Your task to perform on an android device: Search for a new lipstick on Sephora Image 0: 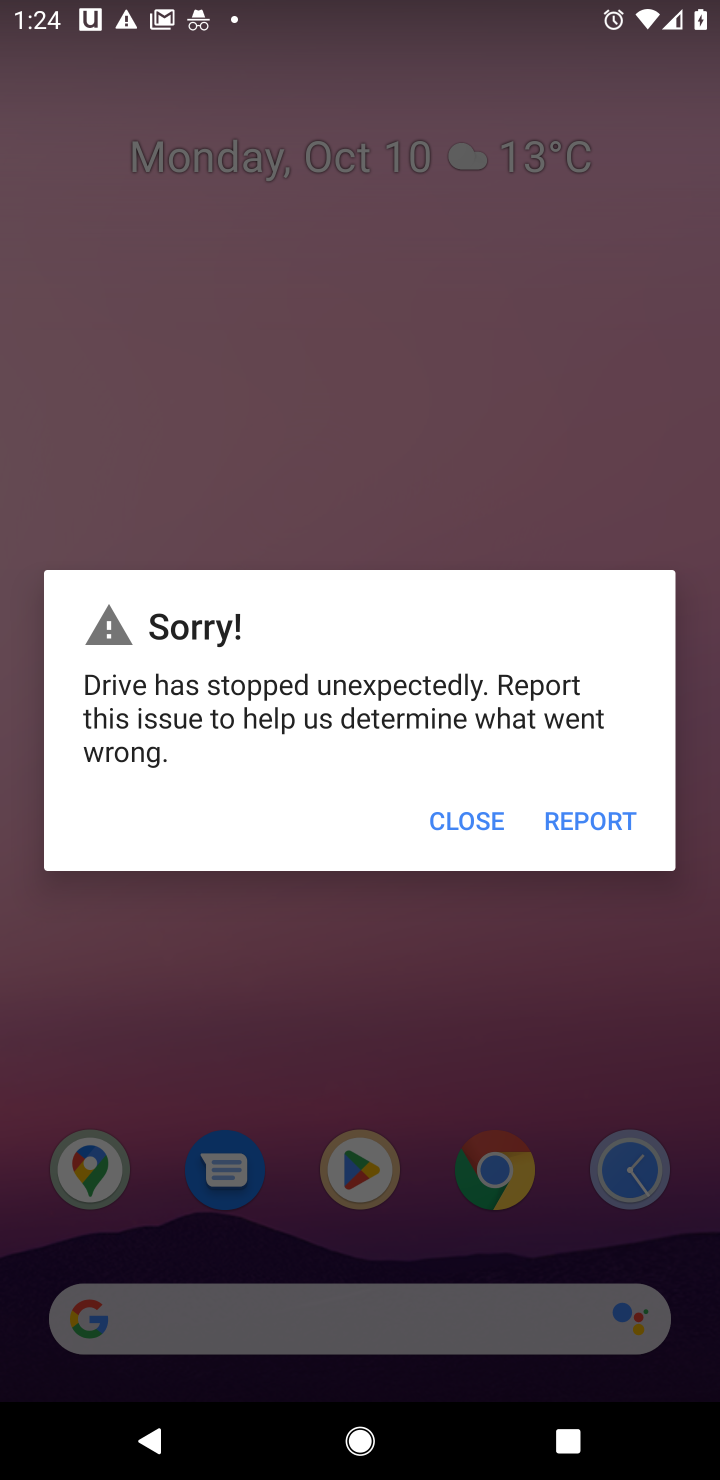
Step 0: press home button
Your task to perform on an android device: Search for a new lipstick on Sephora Image 1: 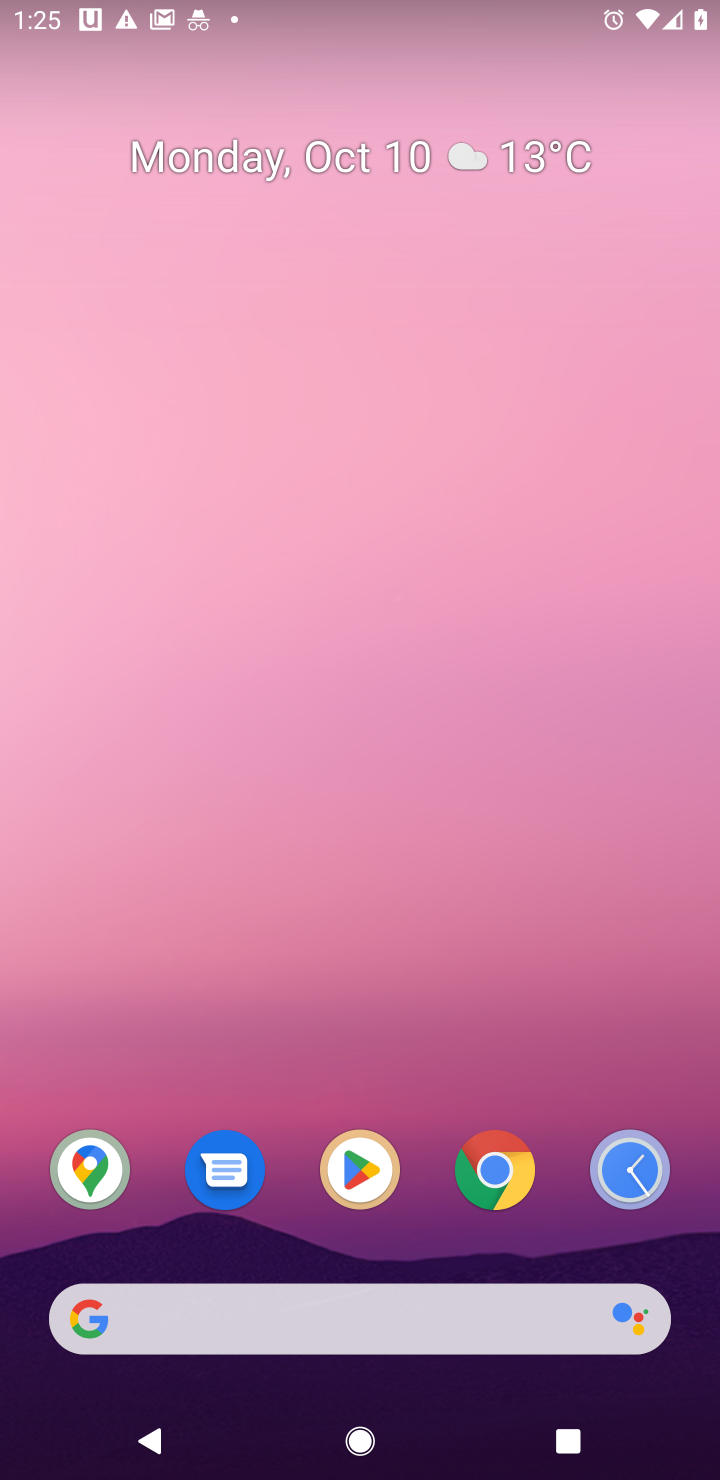
Step 1: click (516, 1163)
Your task to perform on an android device: Search for a new lipstick on Sephora Image 2: 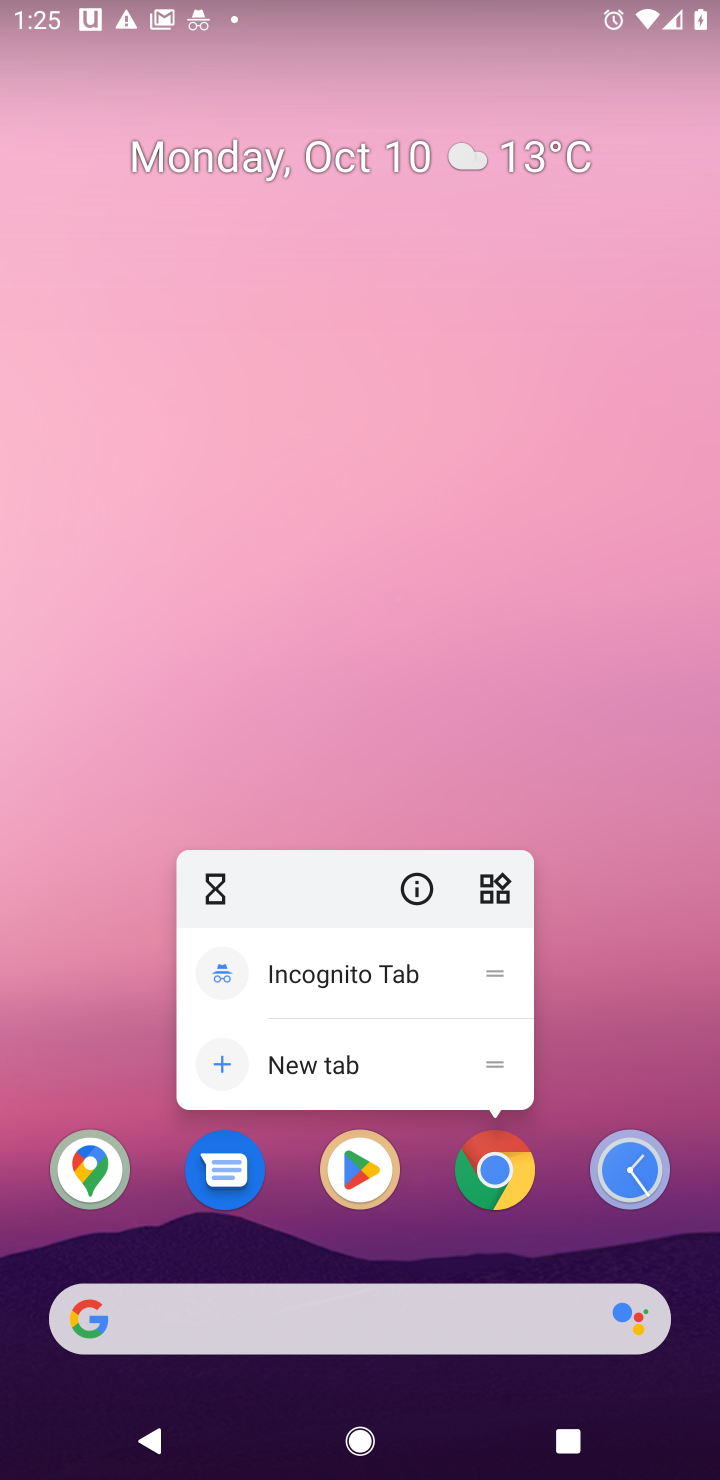
Step 2: click (516, 1163)
Your task to perform on an android device: Search for a new lipstick on Sephora Image 3: 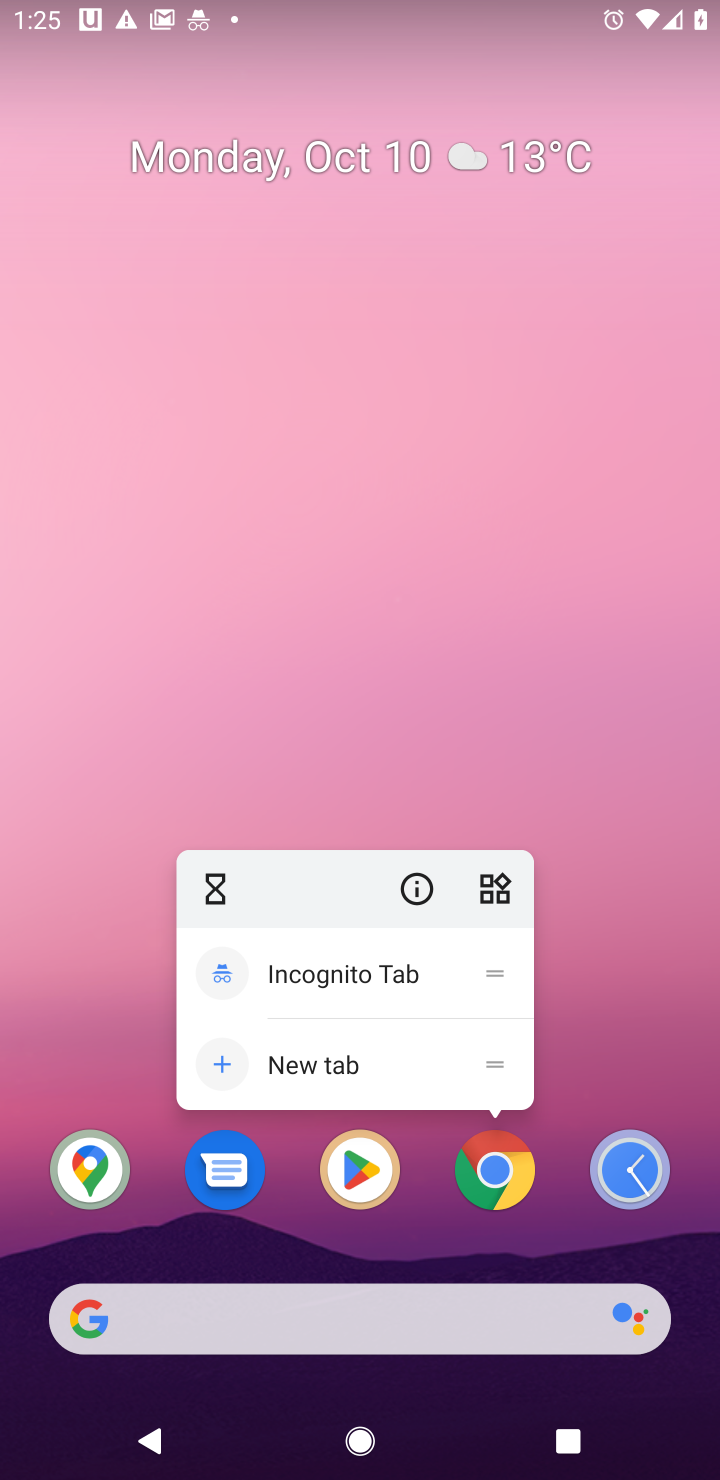
Step 3: click (516, 1163)
Your task to perform on an android device: Search for a new lipstick on Sephora Image 4: 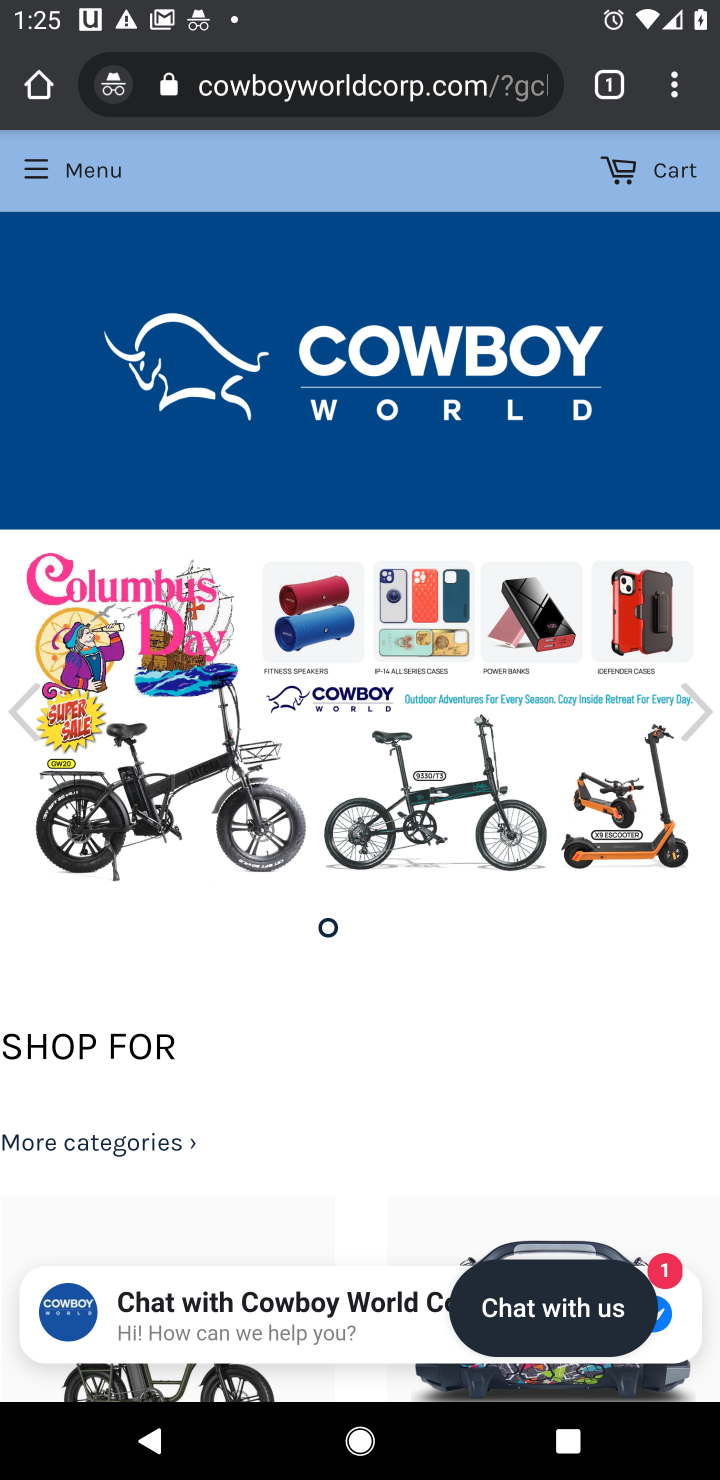
Step 4: click (361, 90)
Your task to perform on an android device: Search for a new lipstick on Sephora Image 5: 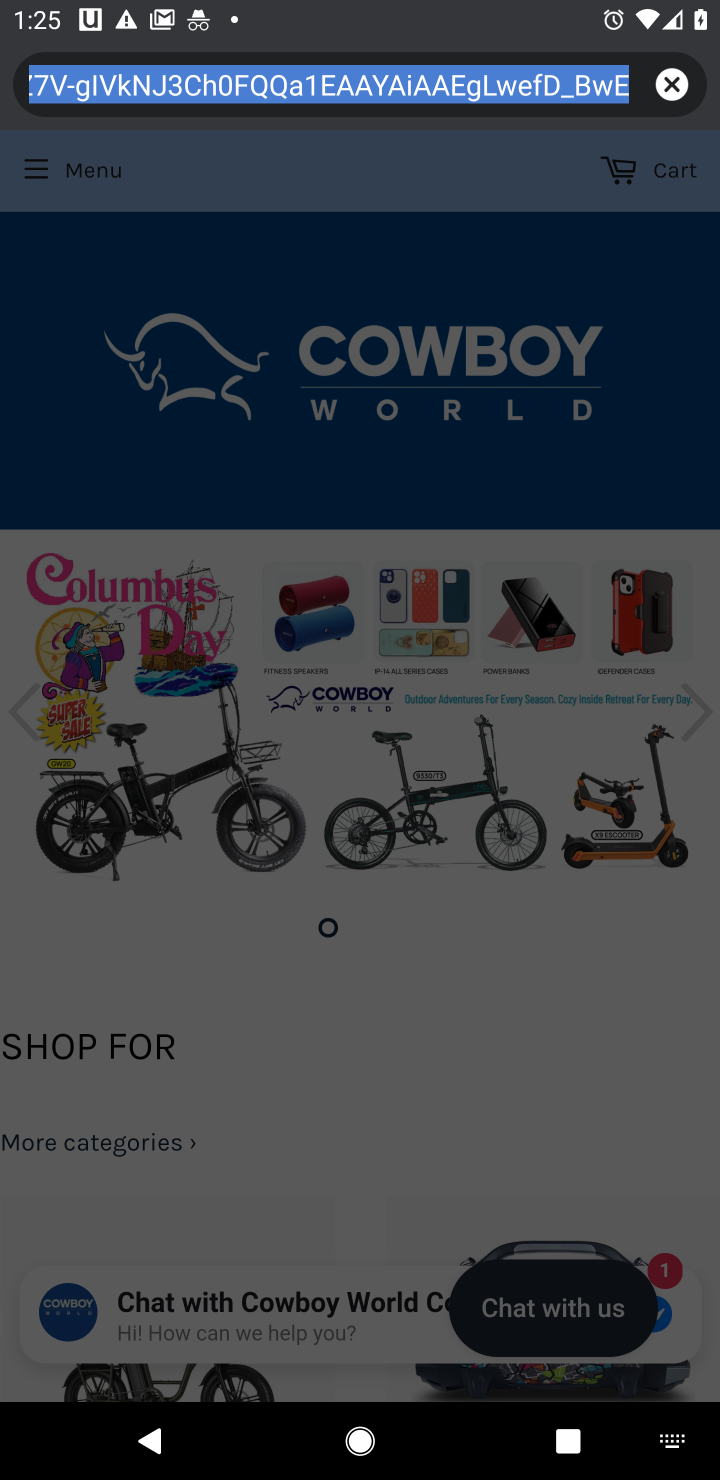
Step 5: click (666, 86)
Your task to perform on an android device: Search for a new lipstick on Sephora Image 6: 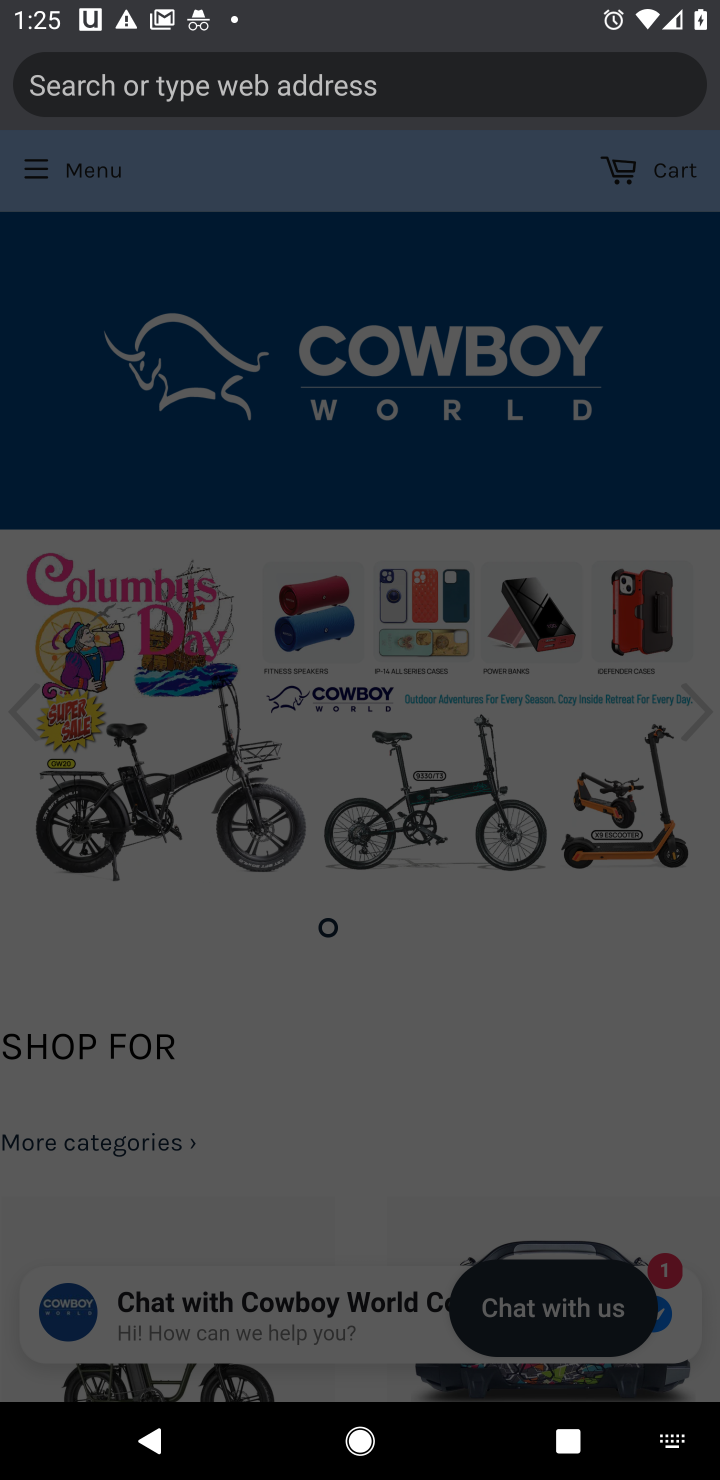
Step 6: type "new lipstick on sephora"
Your task to perform on an android device: Search for a new lipstick on Sephora Image 7: 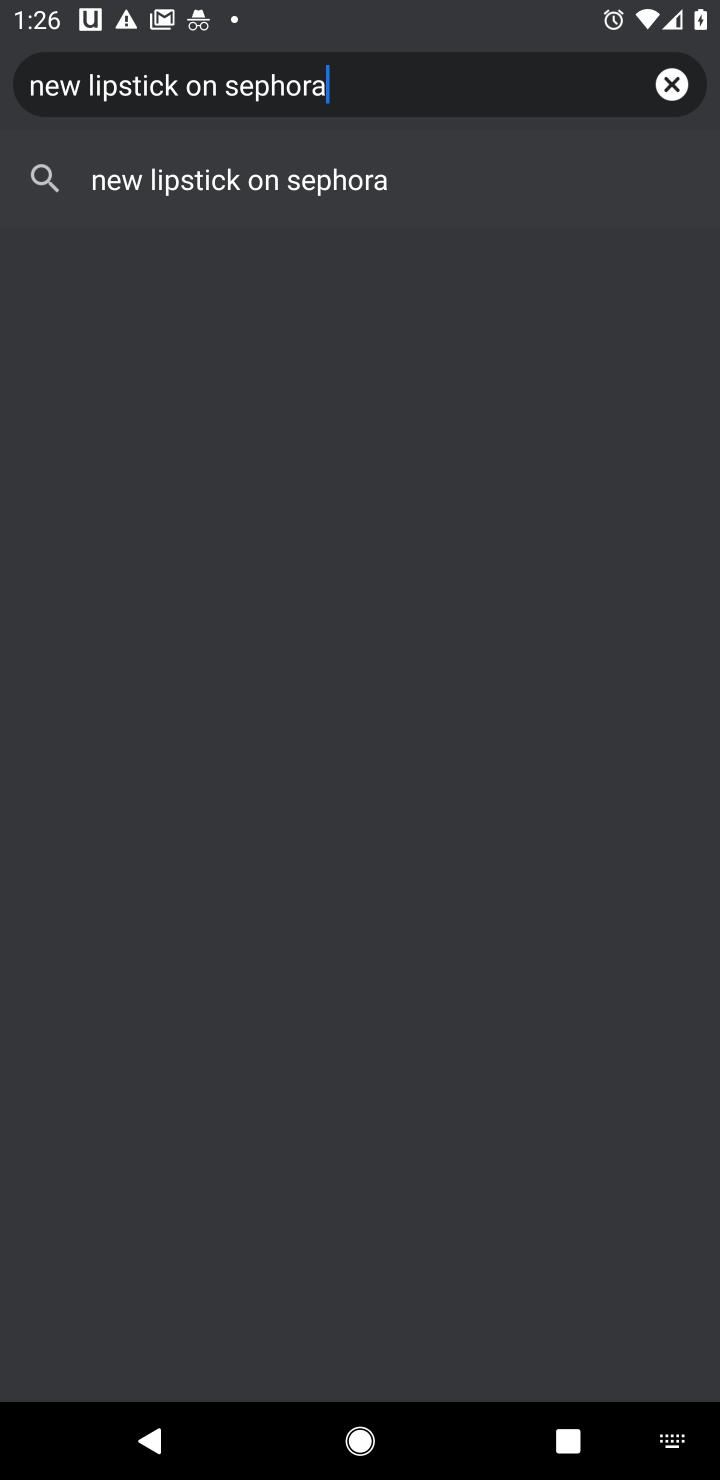
Step 7: type ""
Your task to perform on an android device: Search for a new lipstick on Sephora Image 8: 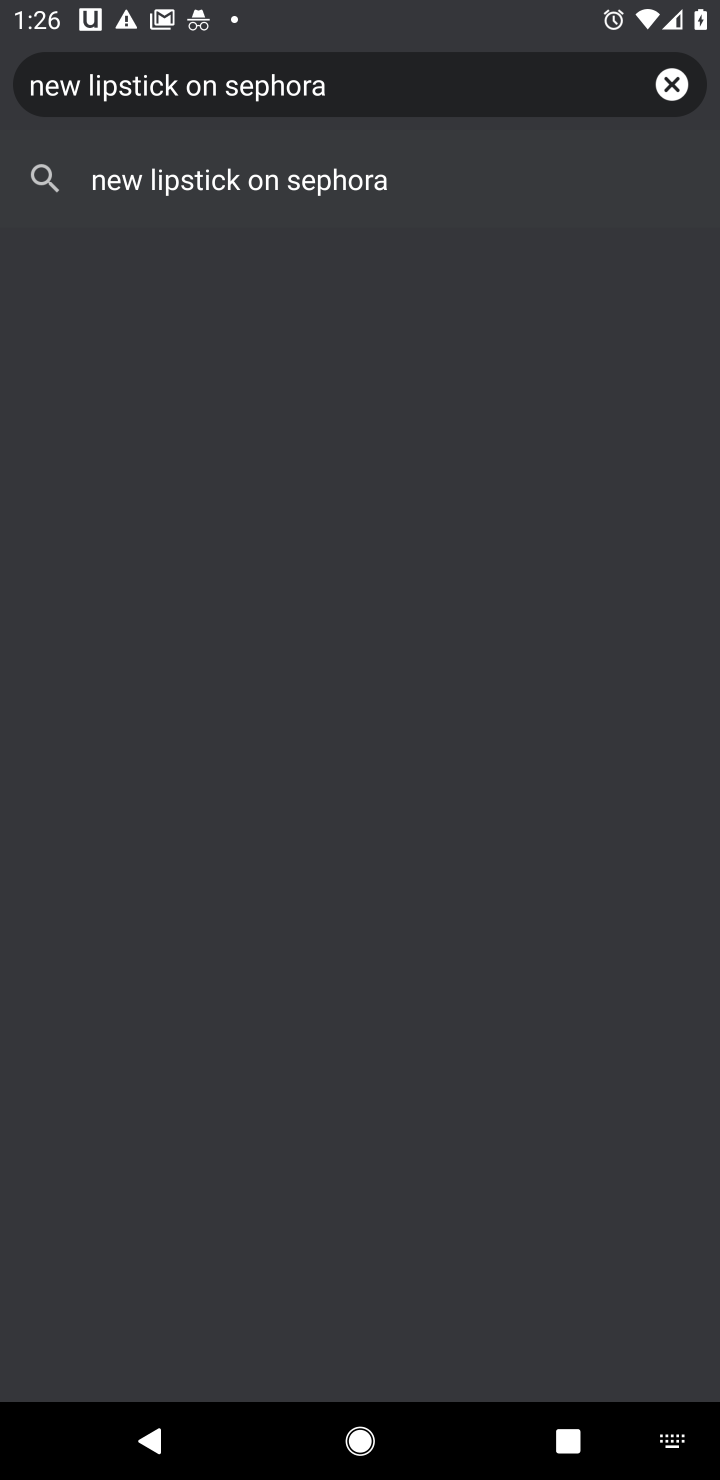
Step 8: click (264, 189)
Your task to perform on an android device: Search for a new lipstick on Sephora Image 9: 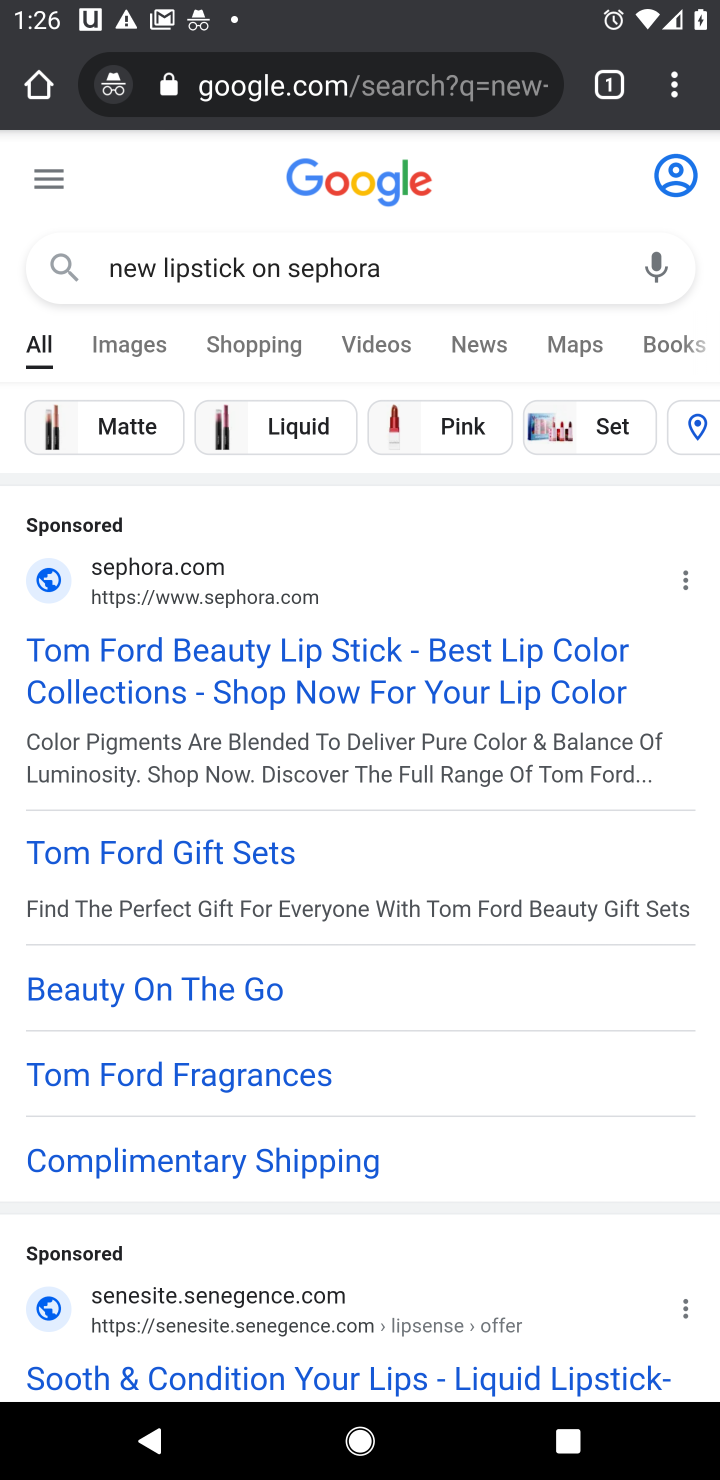
Step 9: click (268, 671)
Your task to perform on an android device: Search for a new lipstick on Sephora Image 10: 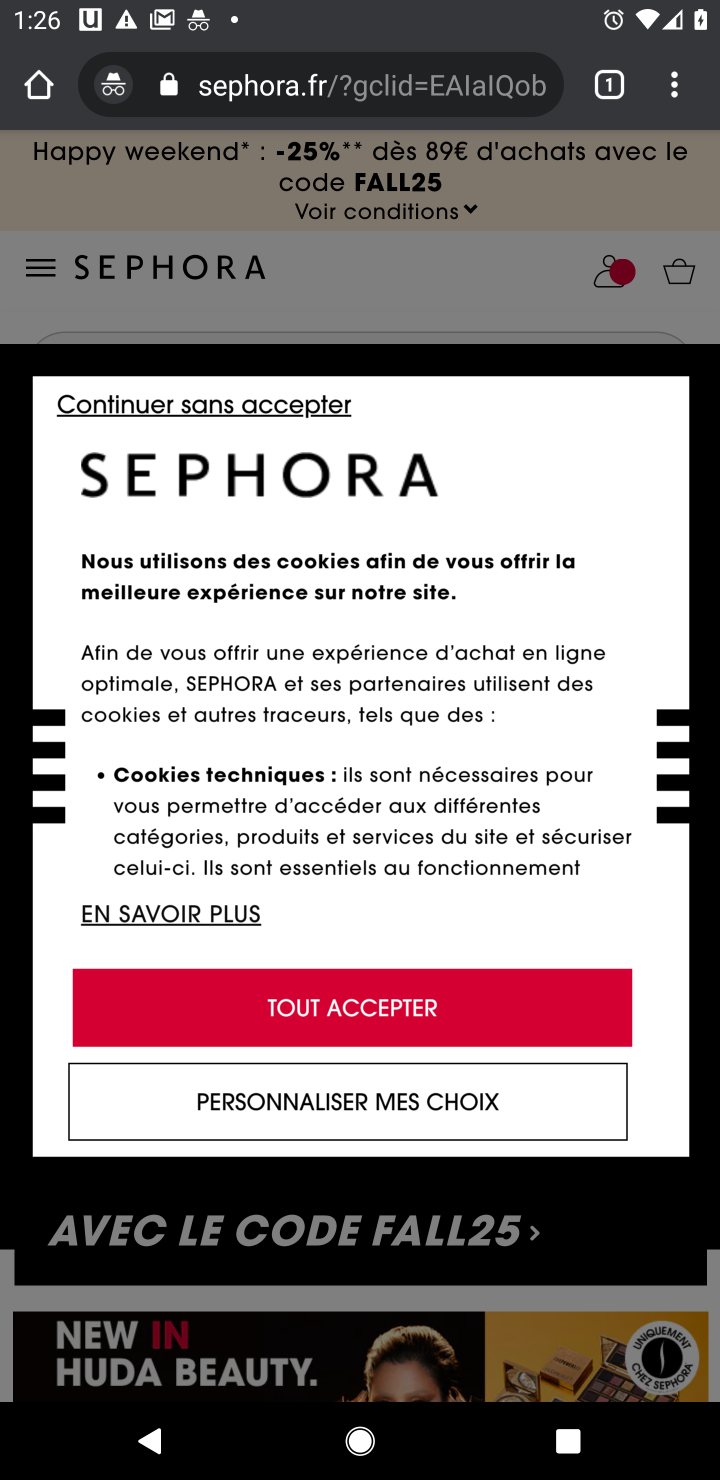
Step 10: task complete